Your task to perform on an android device: manage bookmarks in the chrome app Image 0: 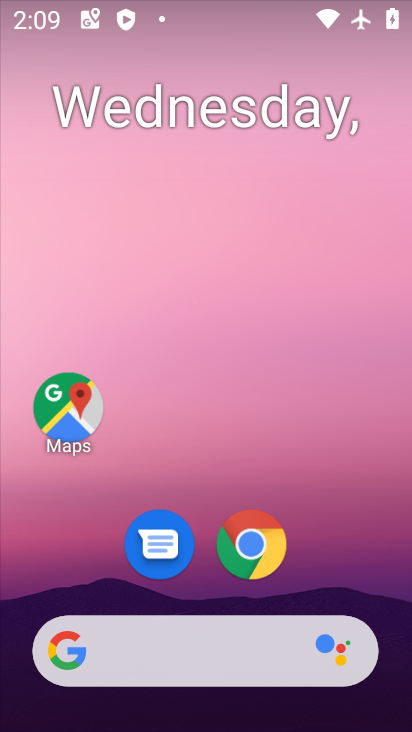
Step 0: click (253, 557)
Your task to perform on an android device: manage bookmarks in the chrome app Image 1: 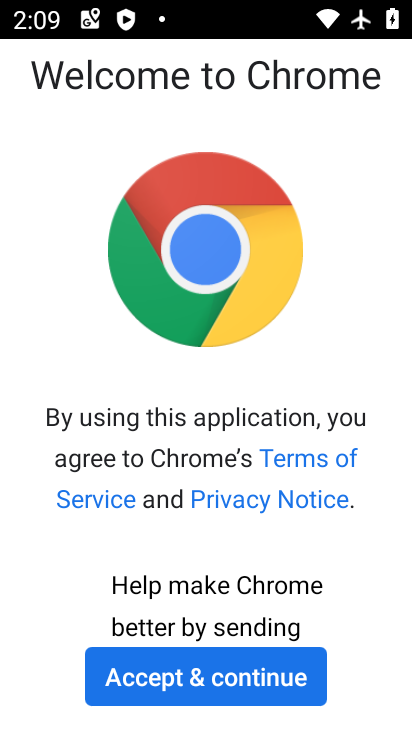
Step 1: click (227, 685)
Your task to perform on an android device: manage bookmarks in the chrome app Image 2: 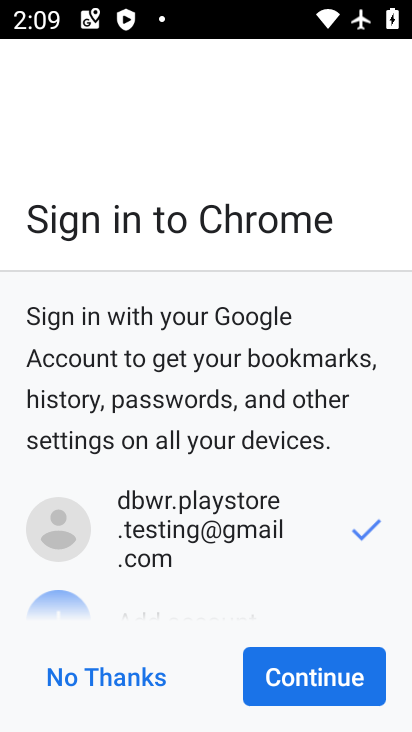
Step 2: click (227, 685)
Your task to perform on an android device: manage bookmarks in the chrome app Image 3: 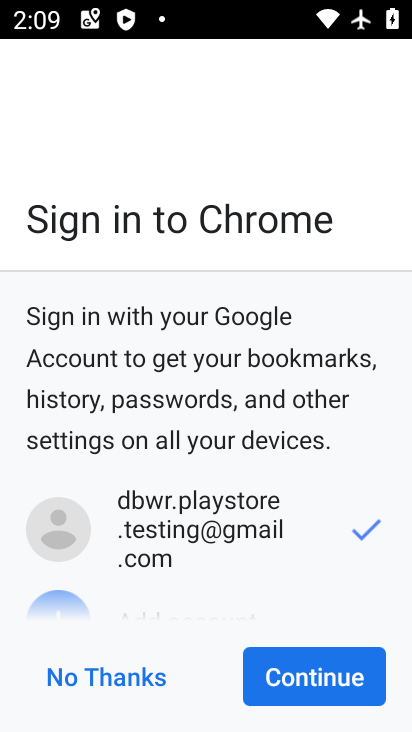
Step 3: click (349, 685)
Your task to perform on an android device: manage bookmarks in the chrome app Image 4: 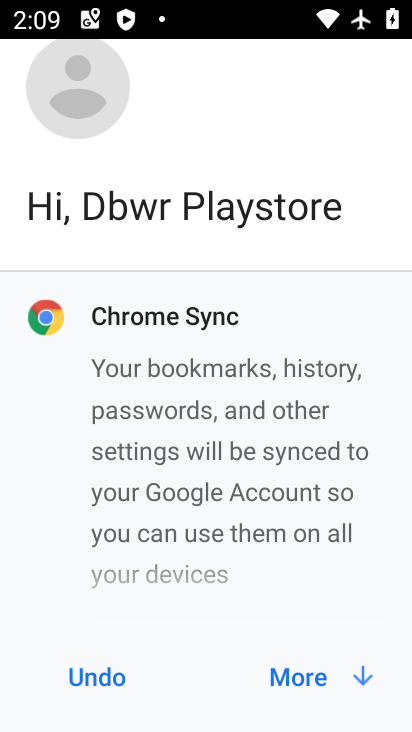
Step 4: click (349, 685)
Your task to perform on an android device: manage bookmarks in the chrome app Image 5: 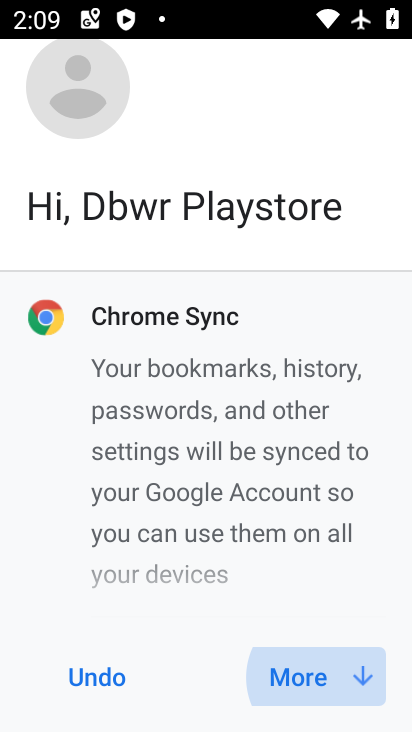
Step 5: click (349, 685)
Your task to perform on an android device: manage bookmarks in the chrome app Image 6: 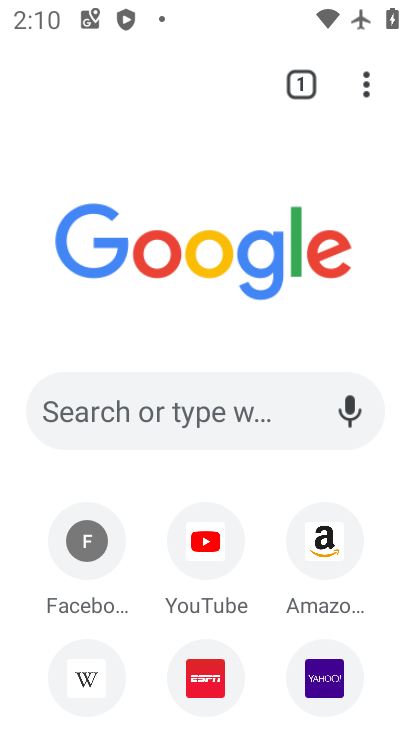
Step 6: click (368, 75)
Your task to perform on an android device: manage bookmarks in the chrome app Image 7: 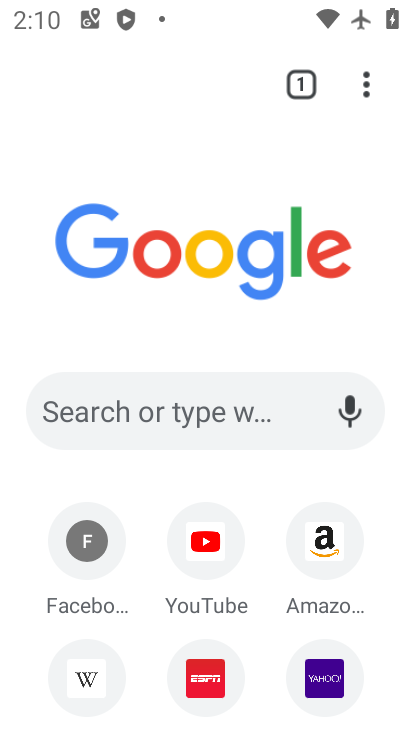
Step 7: click (372, 102)
Your task to perform on an android device: manage bookmarks in the chrome app Image 8: 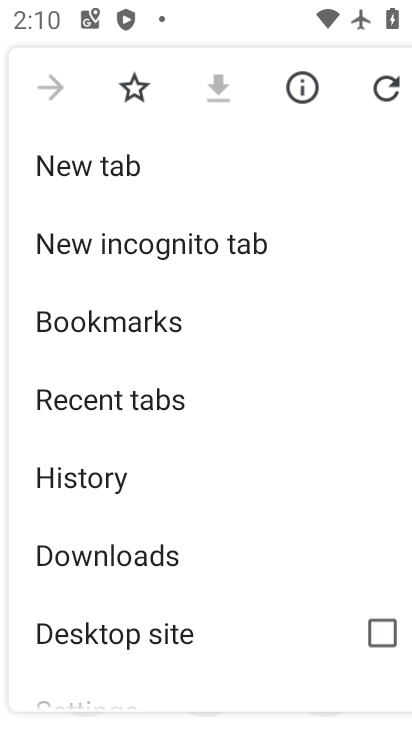
Step 8: click (187, 289)
Your task to perform on an android device: manage bookmarks in the chrome app Image 9: 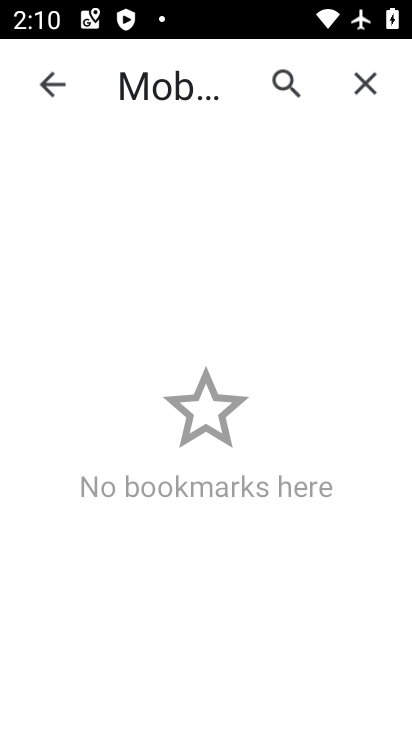
Step 9: task complete